Your task to perform on an android device: manage bookmarks in the chrome app Image 0: 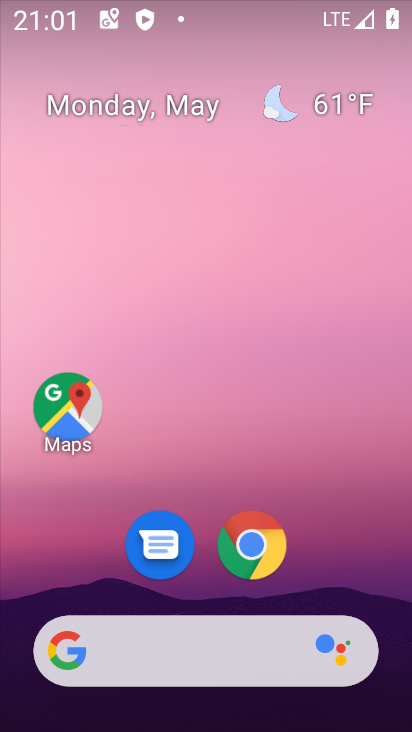
Step 0: click (259, 546)
Your task to perform on an android device: manage bookmarks in the chrome app Image 1: 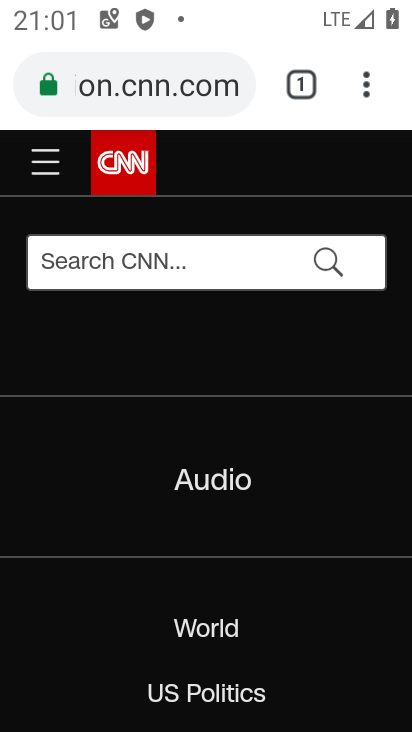
Step 1: drag from (367, 86) to (172, 311)
Your task to perform on an android device: manage bookmarks in the chrome app Image 2: 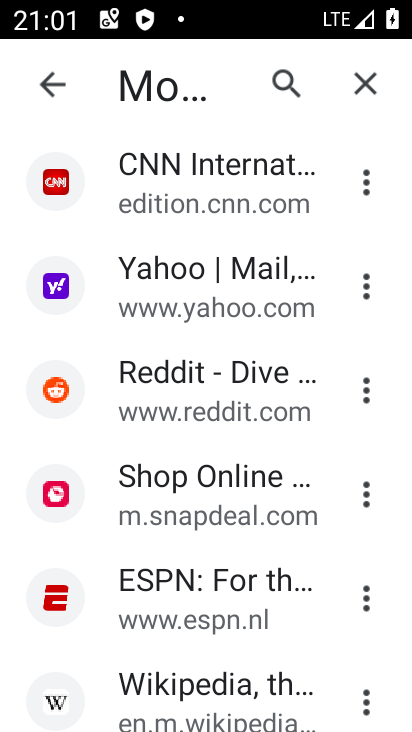
Step 2: click (357, 289)
Your task to perform on an android device: manage bookmarks in the chrome app Image 3: 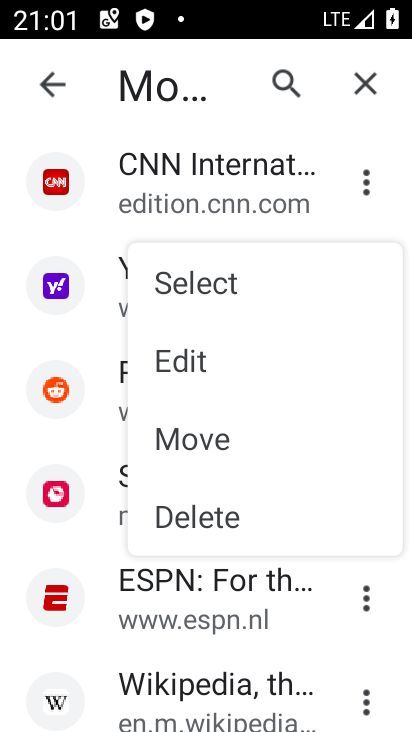
Step 3: click (188, 507)
Your task to perform on an android device: manage bookmarks in the chrome app Image 4: 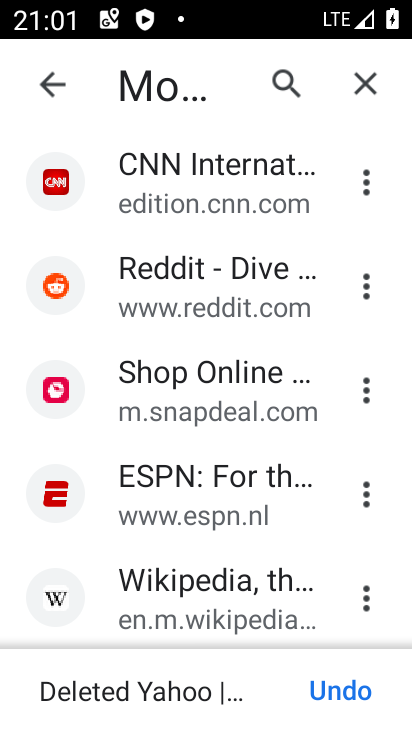
Step 4: task complete